Your task to perform on an android device: open a bookmark in the chrome app Image 0: 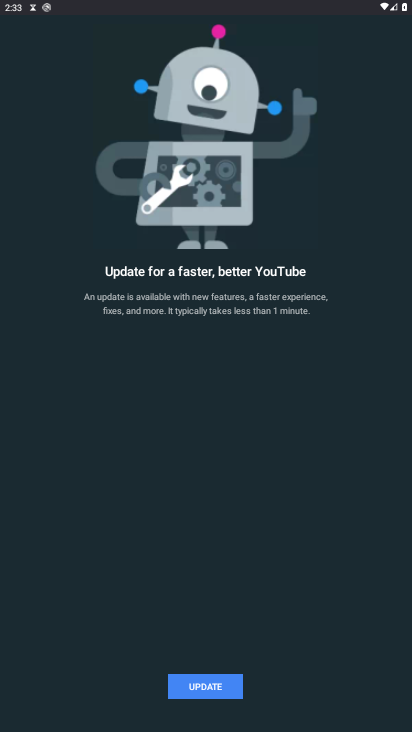
Step 0: press home button
Your task to perform on an android device: open a bookmark in the chrome app Image 1: 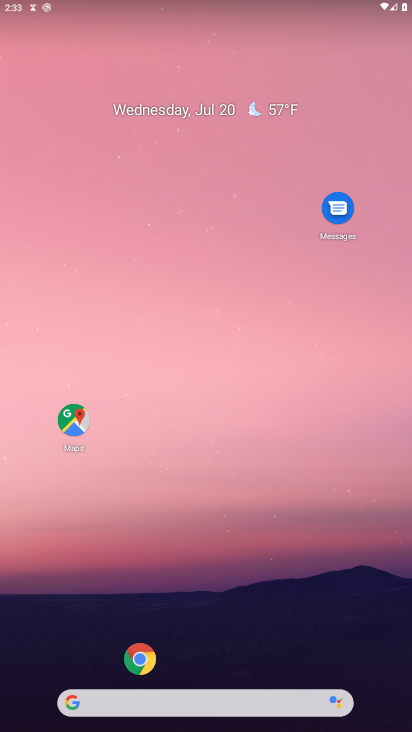
Step 1: click (162, 626)
Your task to perform on an android device: open a bookmark in the chrome app Image 2: 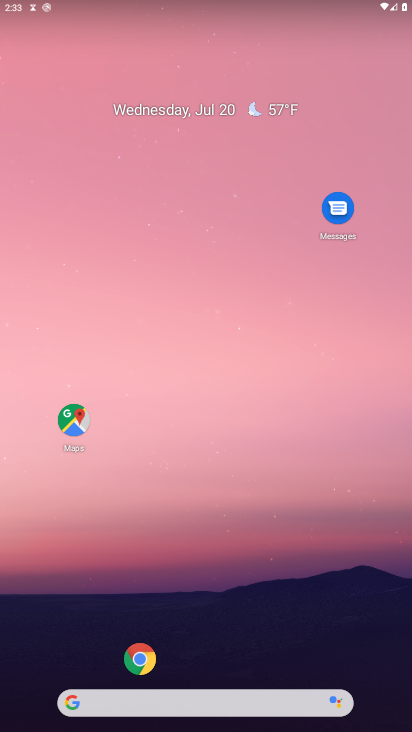
Step 2: click (147, 661)
Your task to perform on an android device: open a bookmark in the chrome app Image 3: 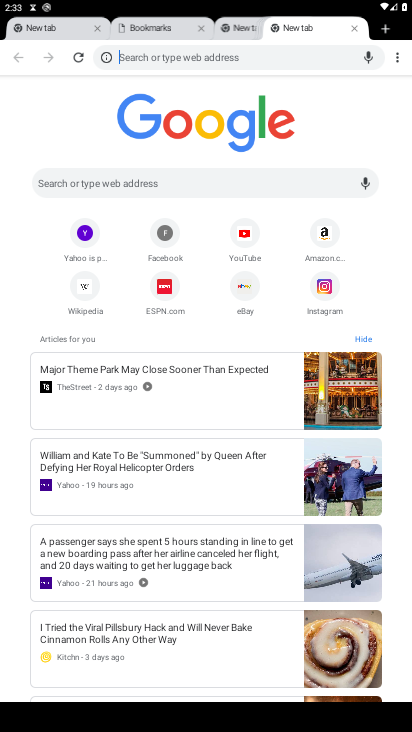
Step 3: click (397, 54)
Your task to perform on an android device: open a bookmark in the chrome app Image 4: 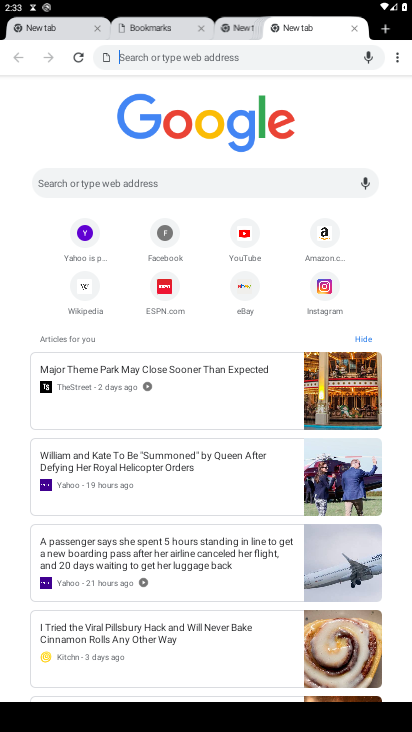
Step 4: click (404, 59)
Your task to perform on an android device: open a bookmark in the chrome app Image 5: 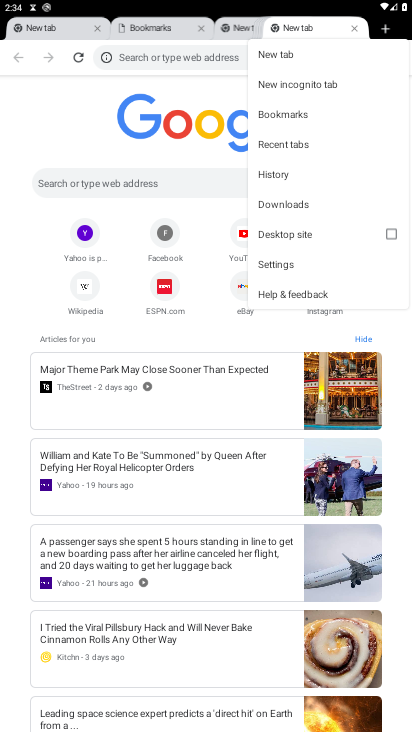
Step 5: click (277, 118)
Your task to perform on an android device: open a bookmark in the chrome app Image 6: 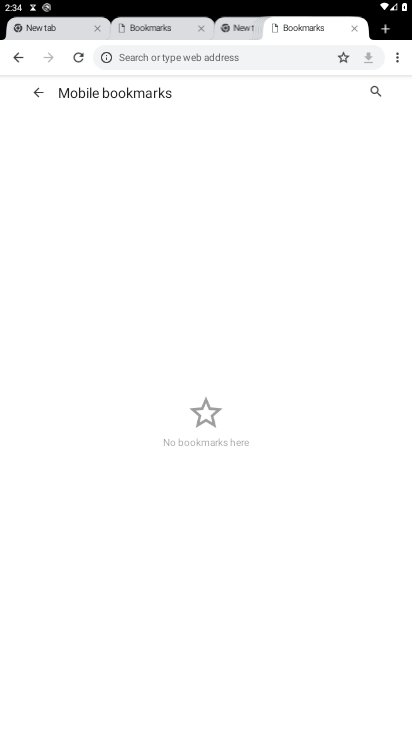
Step 6: task complete